Your task to perform on an android device: find photos in the google photos app Image 0: 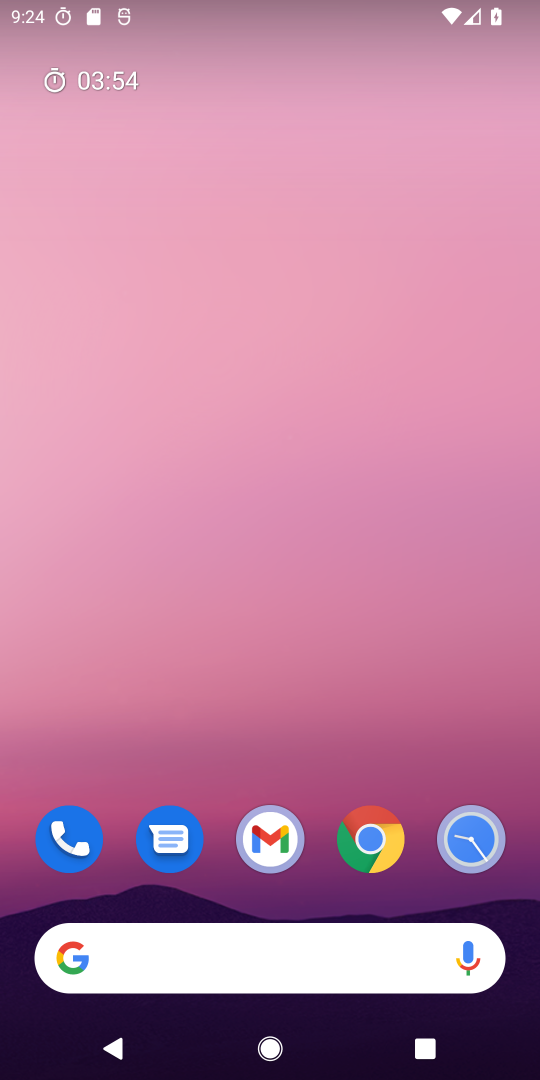
Step 0: press home button
Your task to perform on an android device: find photos in the google photos app Image 1: 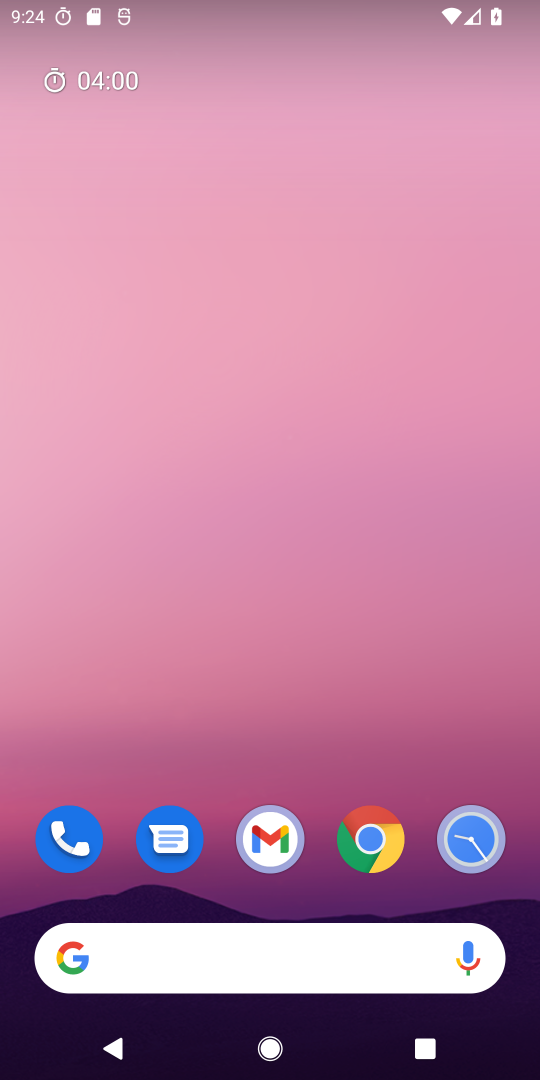
Step 1: drag from (324, 890) to (350, 172)
Your task to perform on an android device: find photos in the google photos app Image 2: 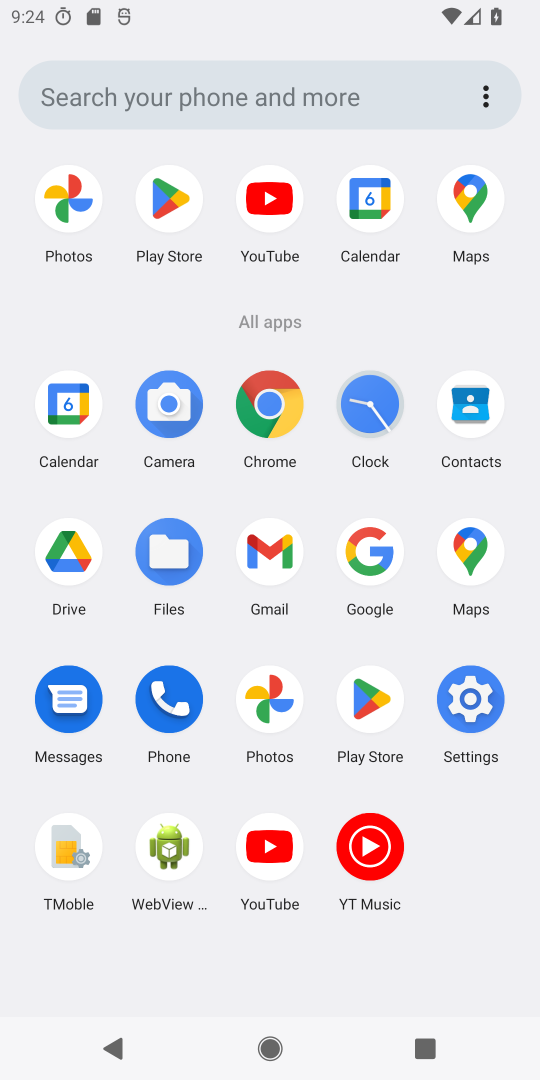
Step 2: click (267, 689)
Your task to perform on an android device: find photos in the google photos app Image 3: 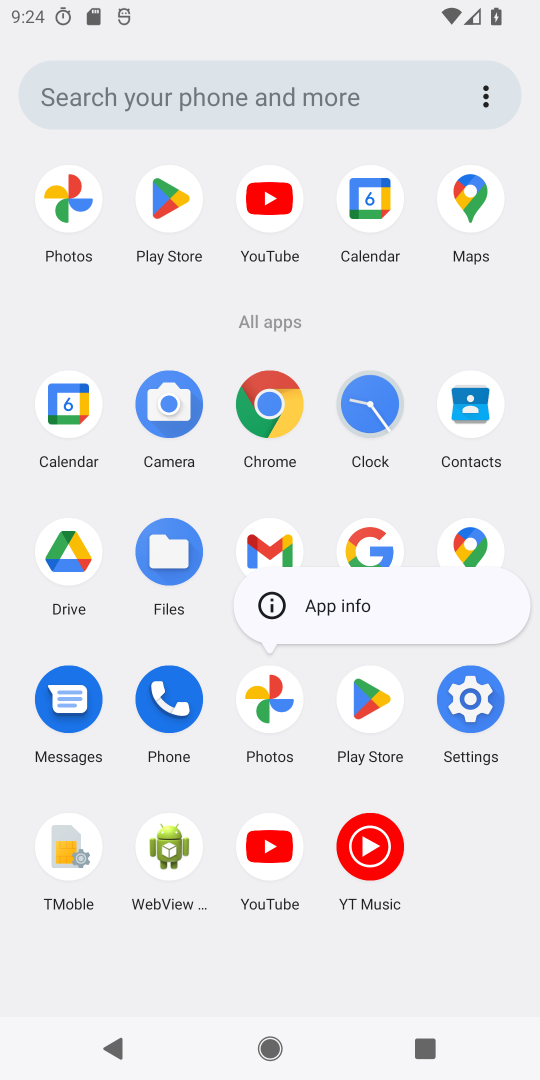
Step 3: click (265, 688)
Your task to perform on an android device: find photos in the google photos app Image 4: 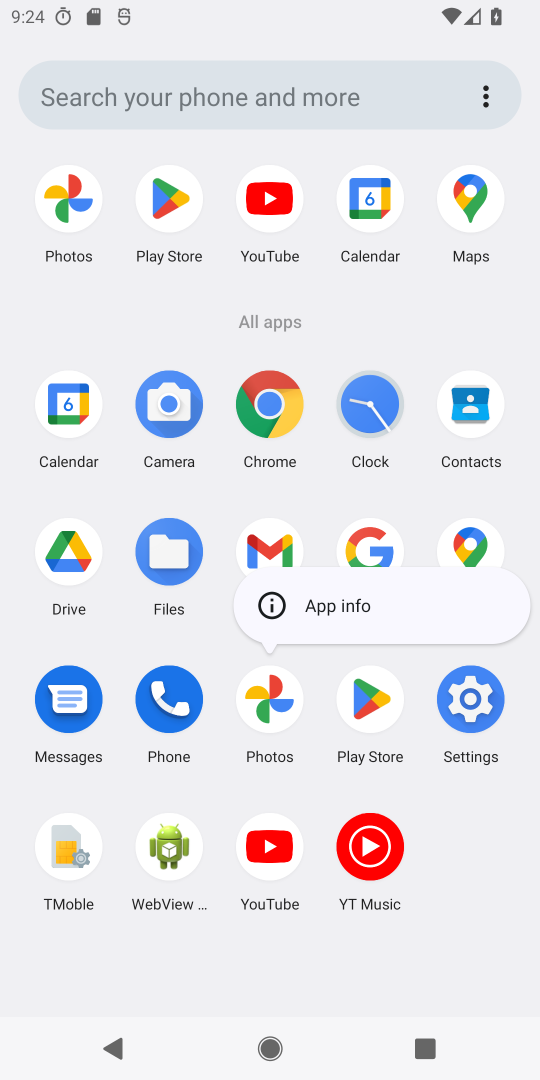
Step 4: click (266, 702)
Your task to perform on an android device: find photos in the google photos app Image 5: 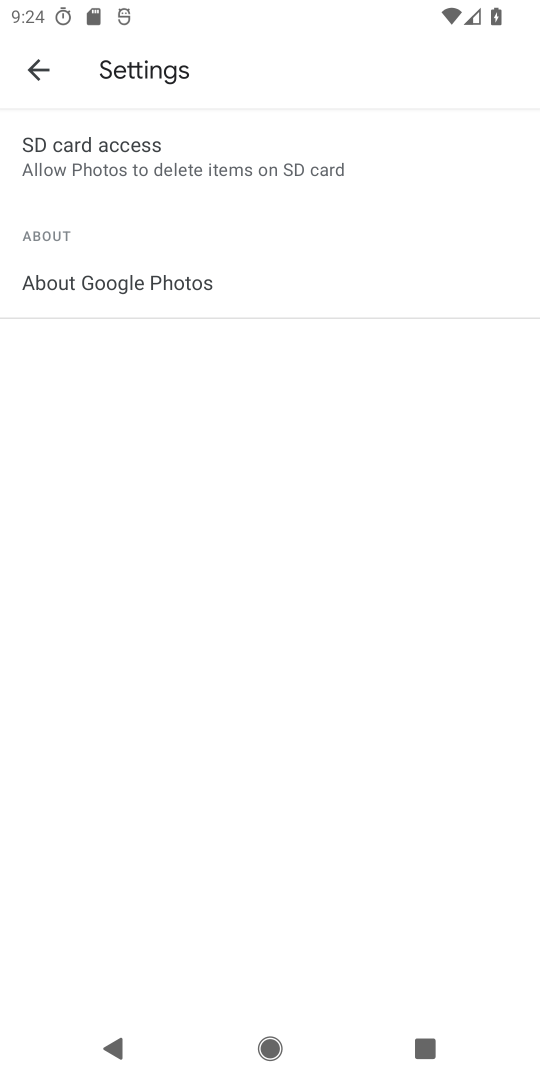
Step 5: click (34, 69)
Your task to perform on an android device: find photos in the google photos app Image 6: 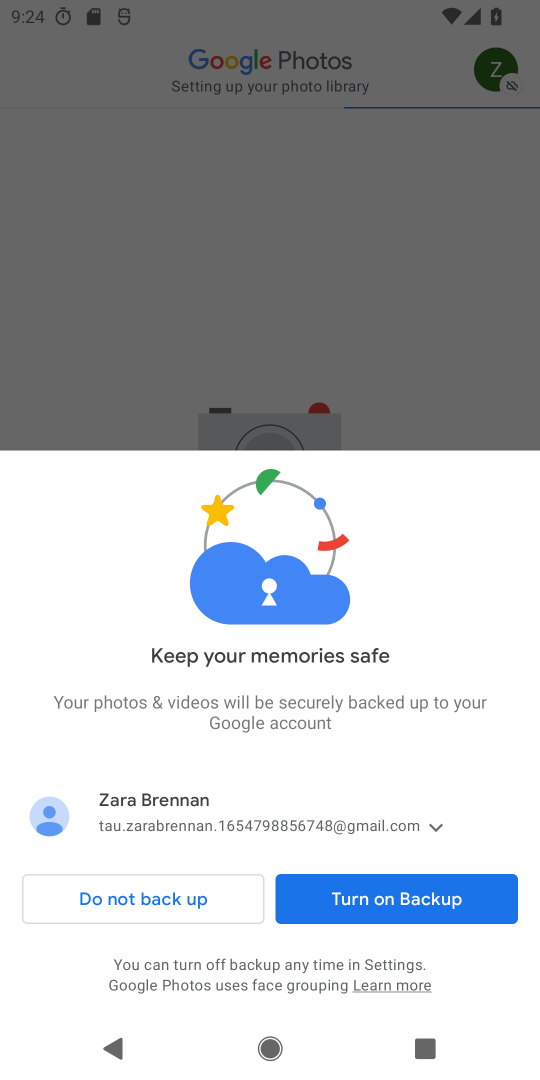
Step 6: click (398, 903)
Your task to perform on an android device: find photos in the google photos app Image 7: 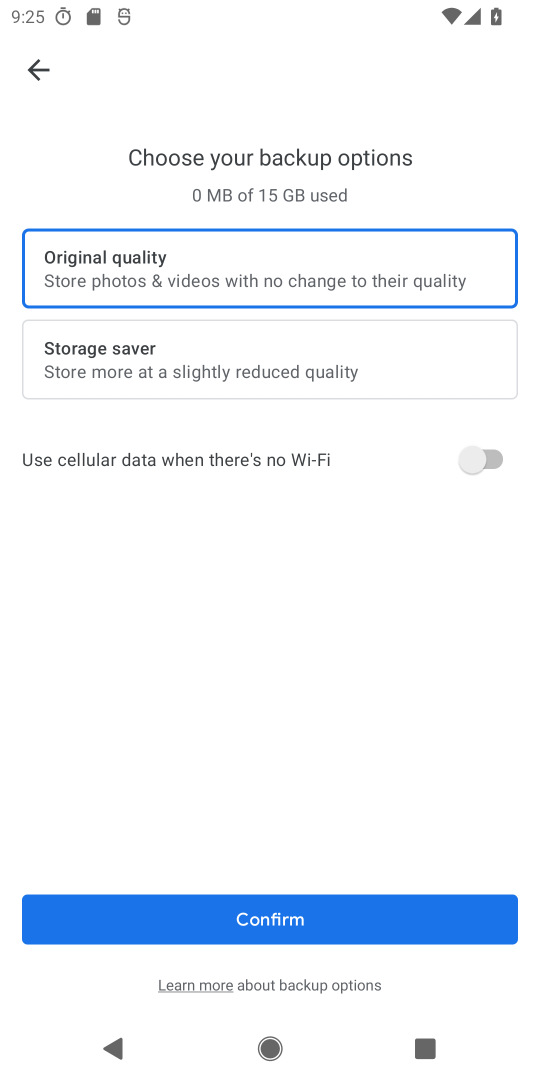
Step 7: click (280, 914)
Your task to perform on an android device: find photos in the google photos app Image 8: 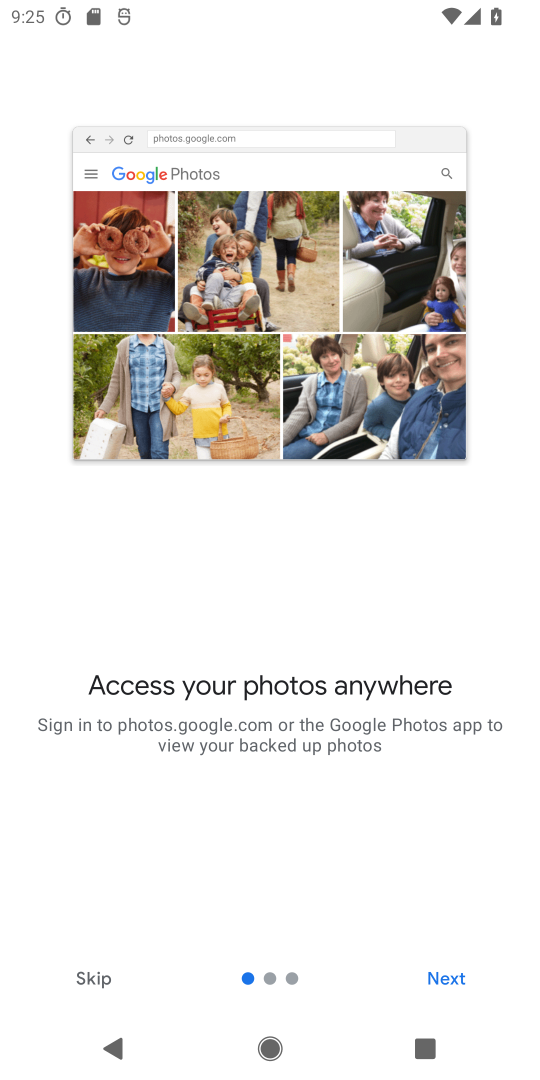
Step 8: click (443, 969)
Your task to perform on an android device: find photos in the google photos app Image 9: 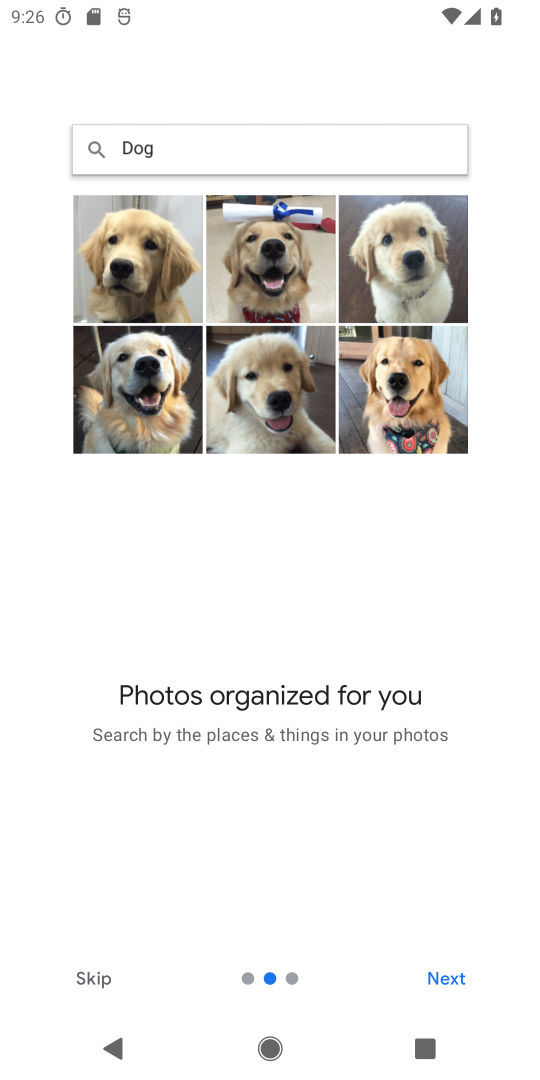
Step 9: click (452, 981)
Your task to perform on an android device: find photos in the google photos app Image 10: 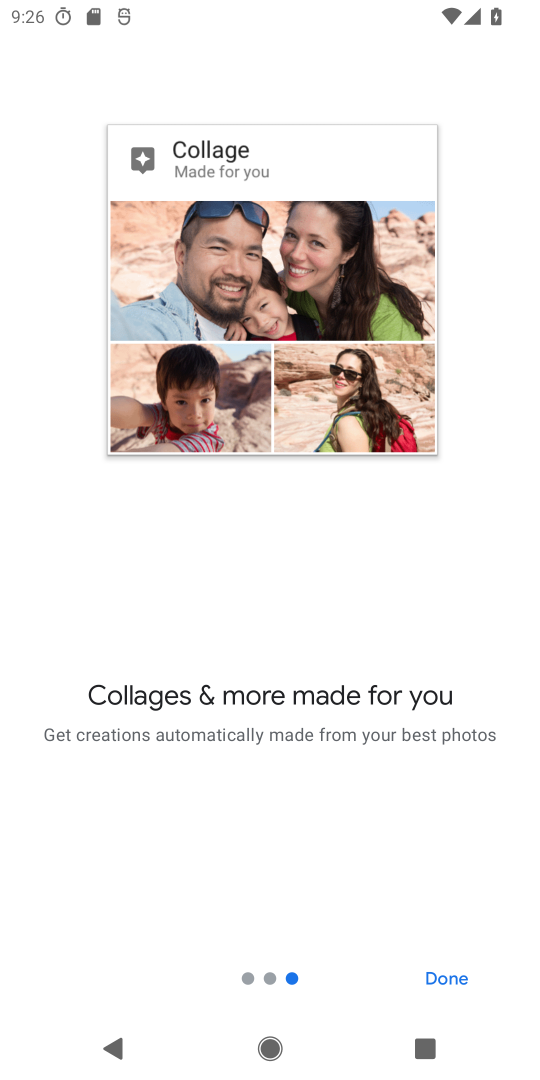
Step 10: click (452, 981)
Your task to perform on an android device: find photos in the google photos app Image 11: 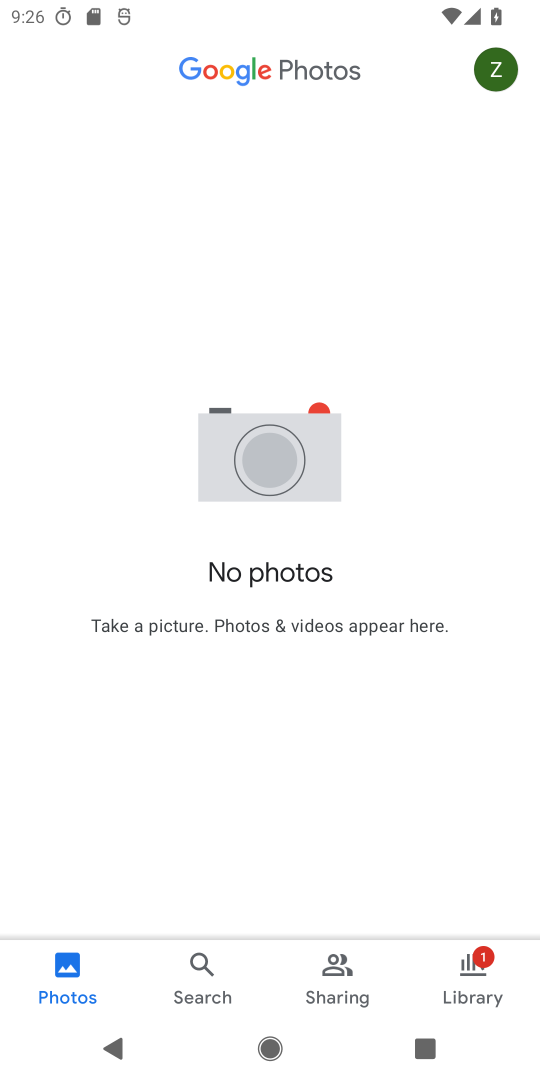
Step 11: task complete